Your task to perform on an android device: turn off location history Image 0: 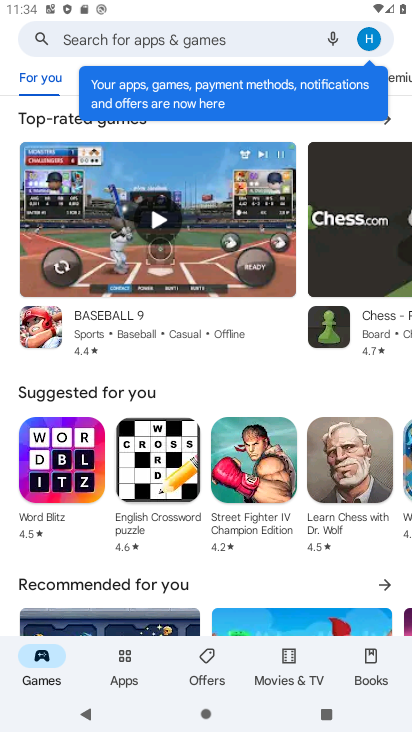
Step 0: press home button
Your task to perform on an android device: turn off location history Image 1: 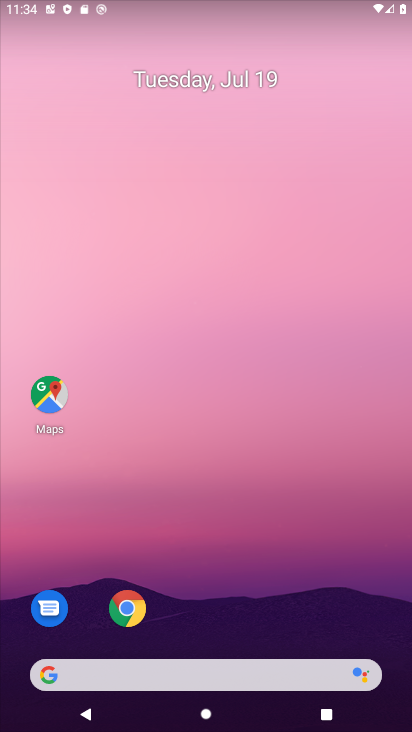
Step 1: drag from (169, 634) to (242, 52)
Your task to perform on an android device: turn off location history Image 2: 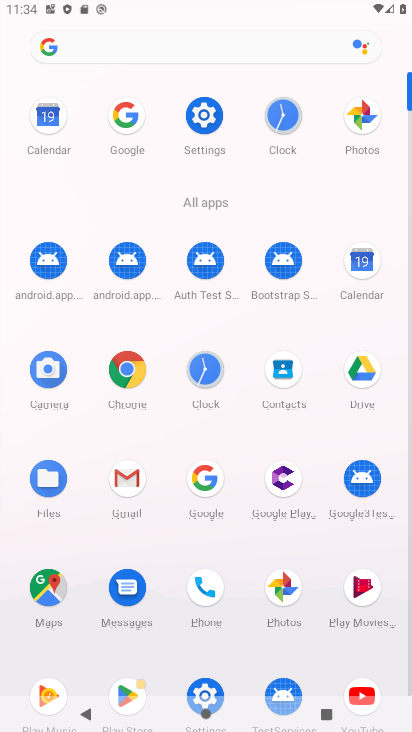
Step 2: click (207, 114)
Your task to perform on an android device: turn off location history Image 3: 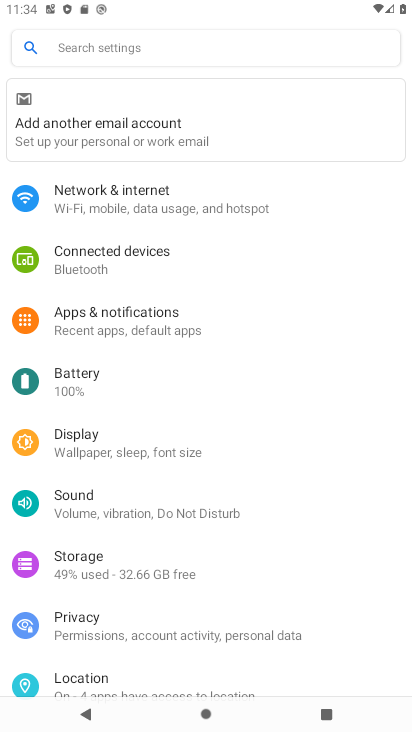
Step 3: click (81, 680)
Your task to perform on an android device: turn off location history Image 4: 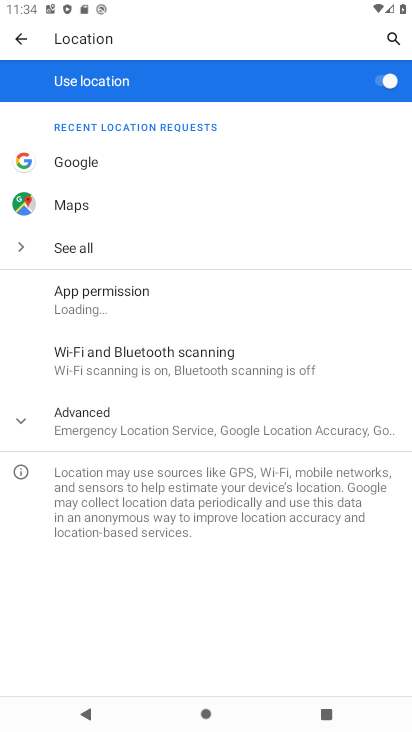
Step 4: click (83, 421)
Your task to perform on an android device: turn off location history Image 5: 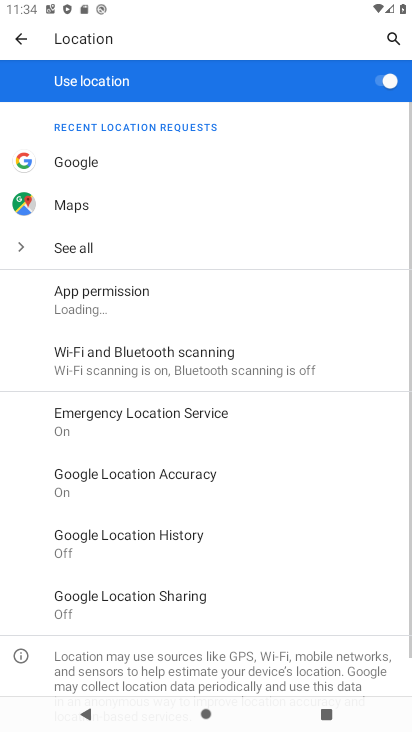
Step 5: click (153, 534)
Your task to perform on an android device: turn off location history Image 6: 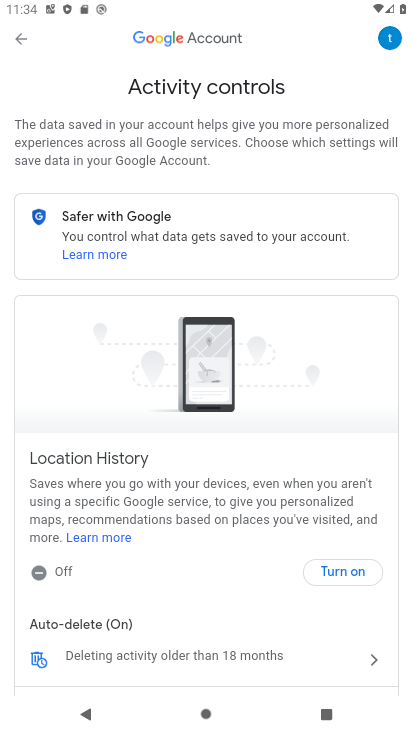
Step 6: task complete